Your task to perform on an android device: See recent photos Image 0: 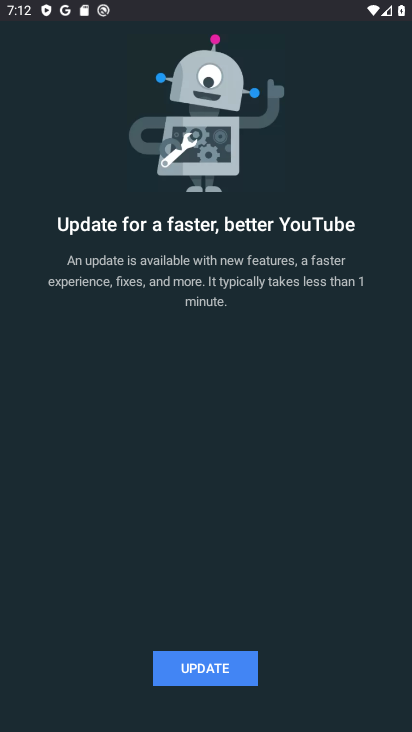
Step 0: press home button
Your task to perform on an android device: See recent photos Image 1: 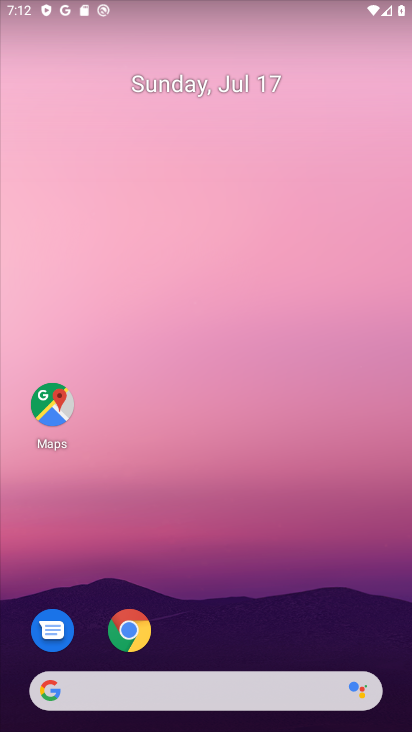
Step 1: drag from (225, 643) to (174, 4)
Your task to perform on an android device: See recent photos Image 2: 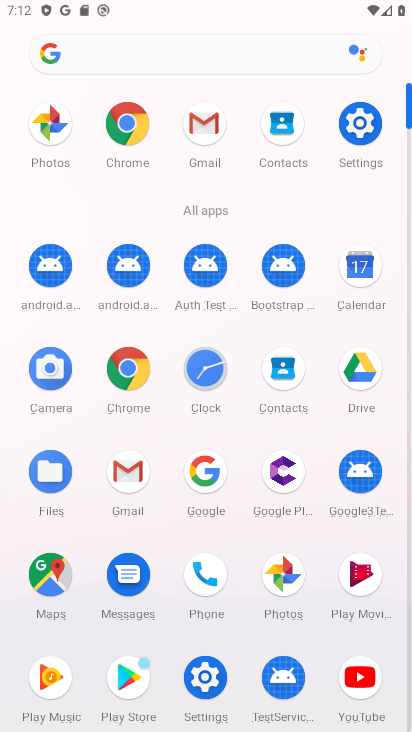
Step 2: click (289, 585)
Your task to perform on an android device: See recent photos Image 3: 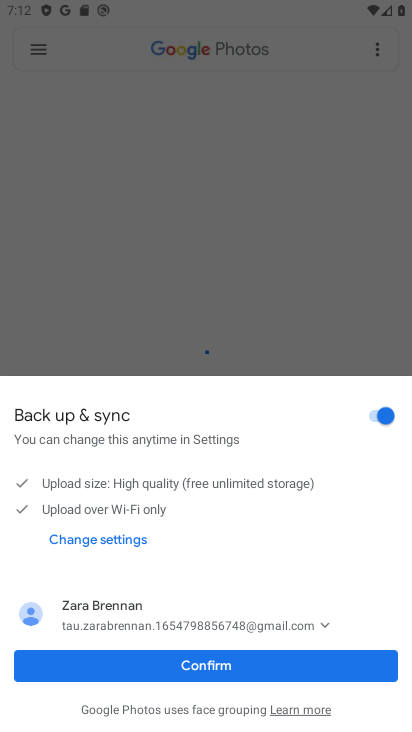
Step 3: click (190, 663)
Your task to perform on an android device: See recent photos Image 4: 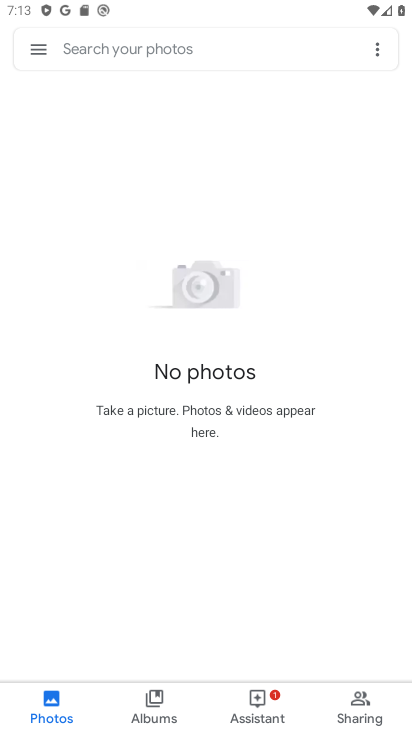
Step 4: task complete